Your task to perform on an android device: turn smart compose on in the gmail app Image 0: 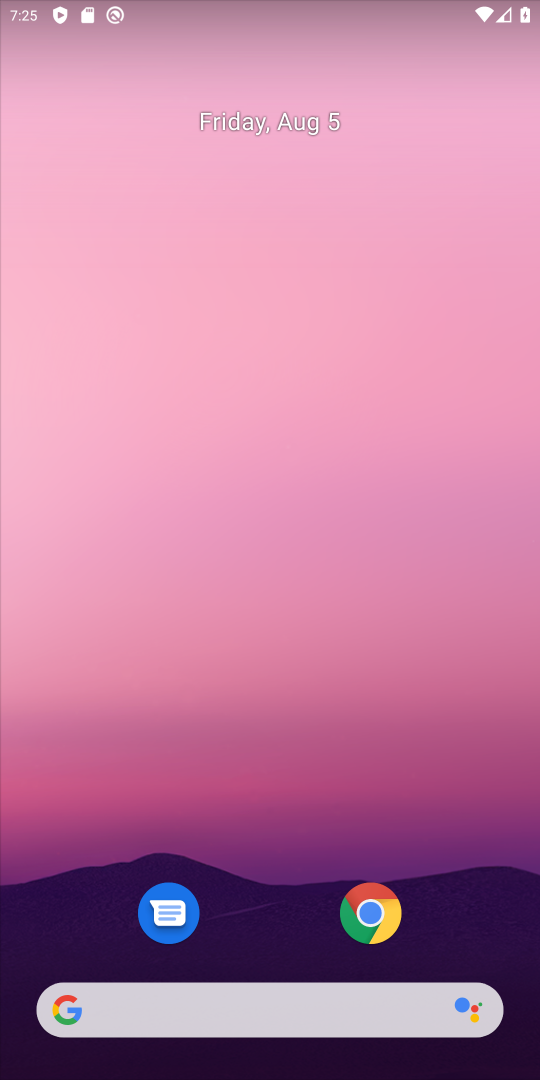
Step 0: drag from (259, 936) to (297, 348)
Your task to perform on an android device: turn smart compose on in the gmail app Image 1: 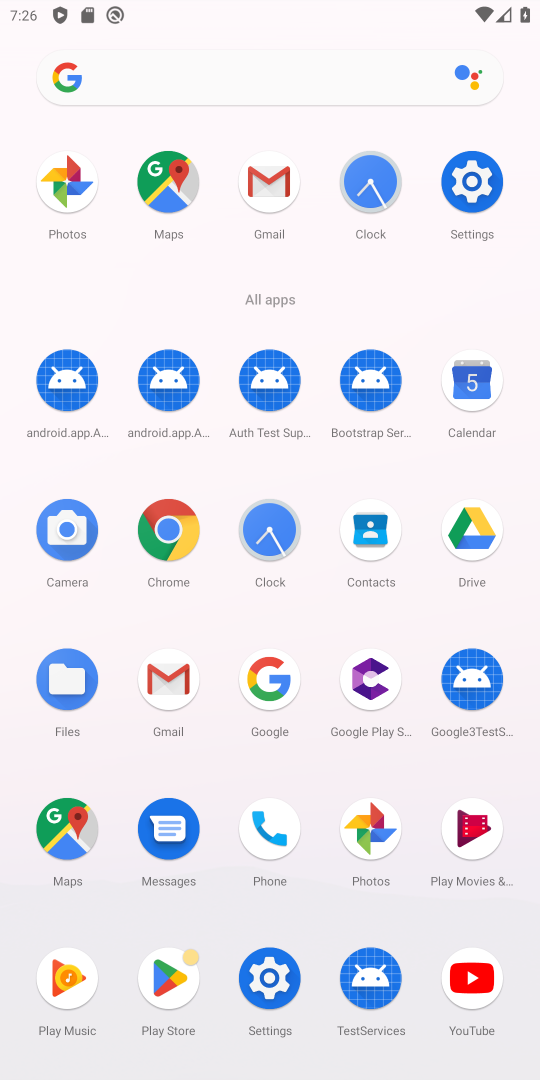
Step 1: click (155, 697)
Your task to perform on an android device: turn smart compose on in the gmail app Image 2: 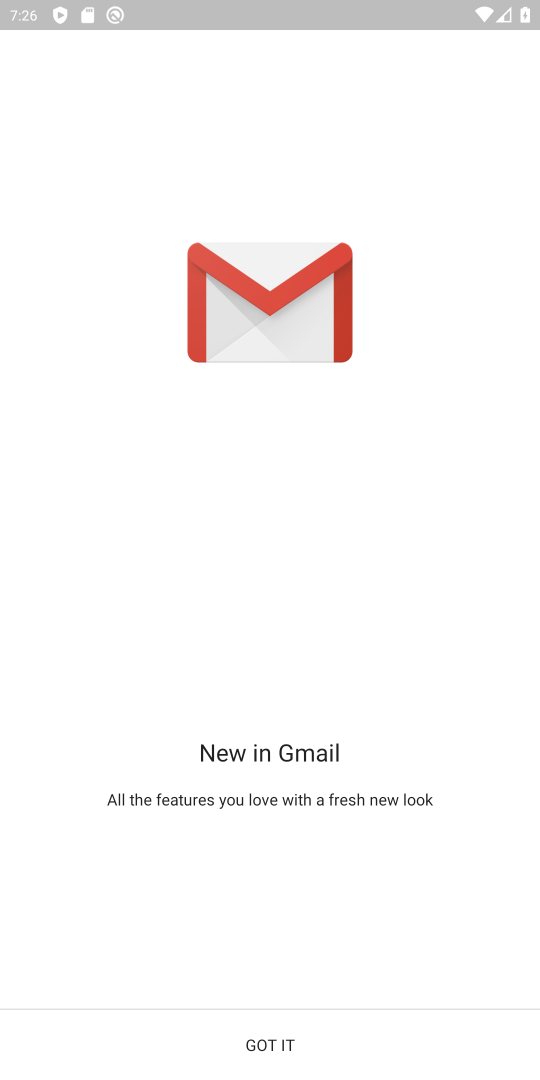
Step 2: click (270, 1044)
Your task to perform on an android device: turn smart compose on in the gmail app Image 3: 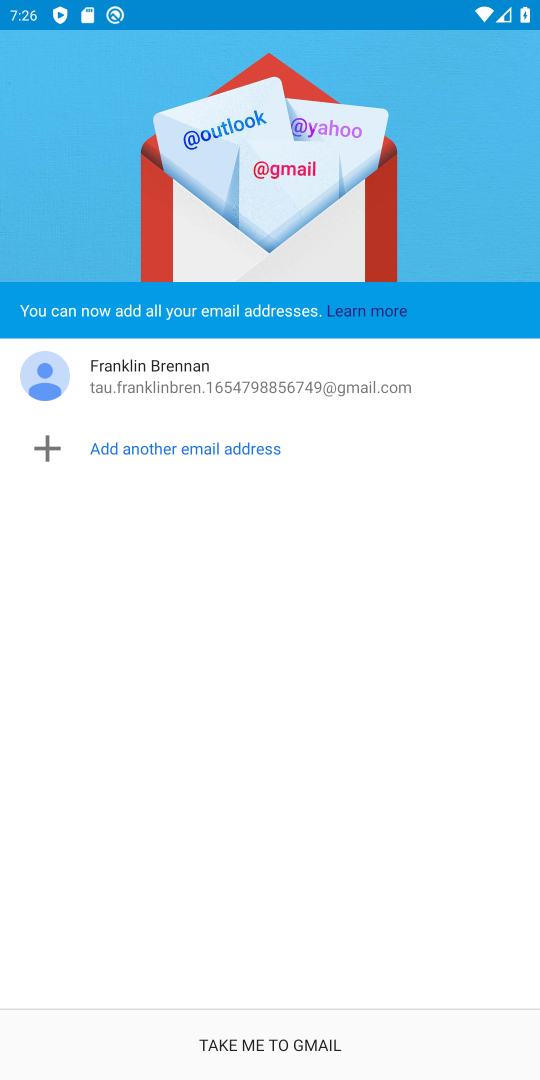
Step 3: click (260, 1050)
Your task to perform on an android device: turn smart compose on in the gmail app Image 4: 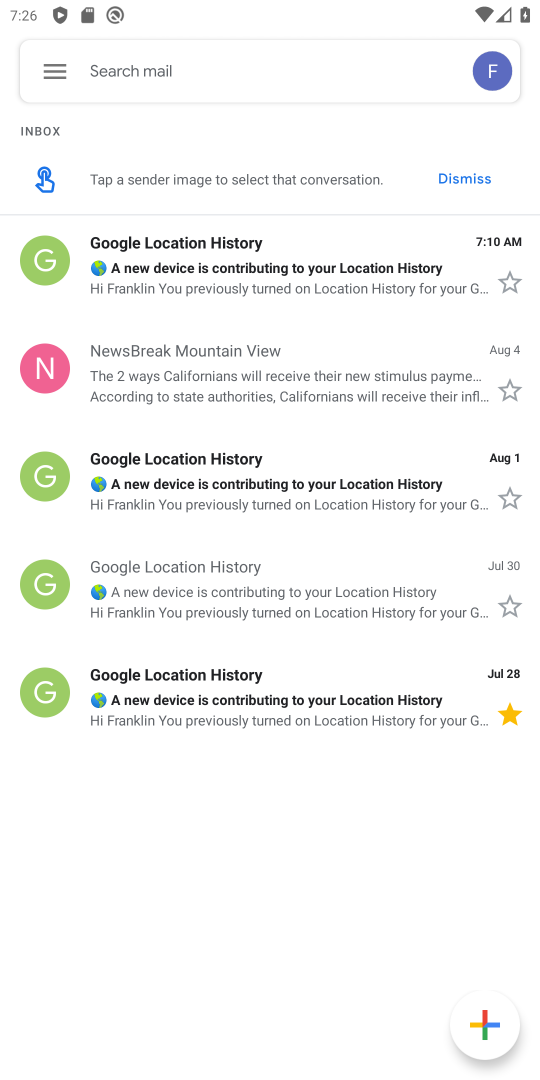
Step 4: click (49, 65)
Your task to perform on an android device: turn smart compose on in the gmail app Image 5: 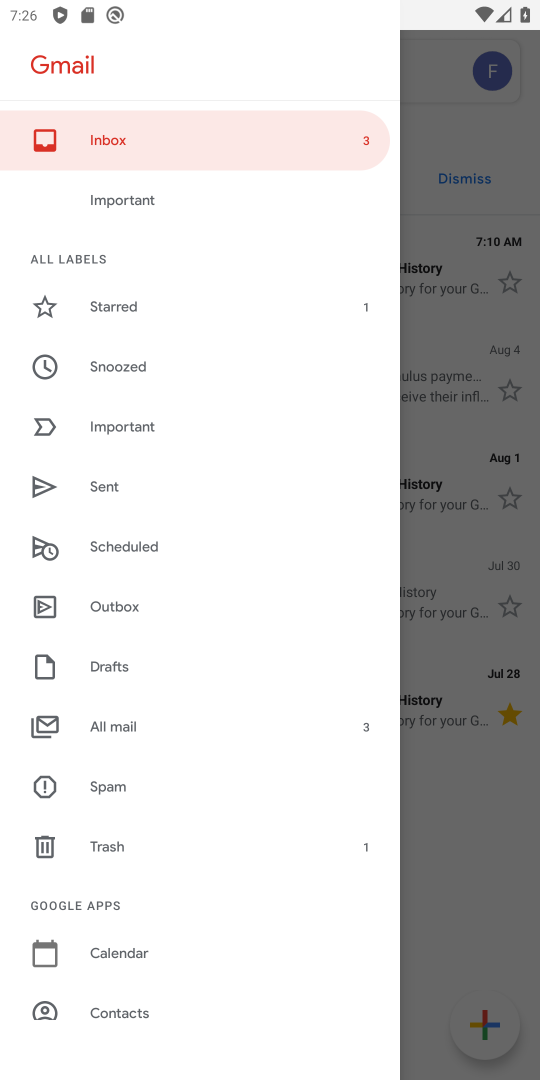
Step 5: drag from (305, 816) to (318, 691)
Your task to perform on an android device: turn smart compose on in the gmail app Image 6: 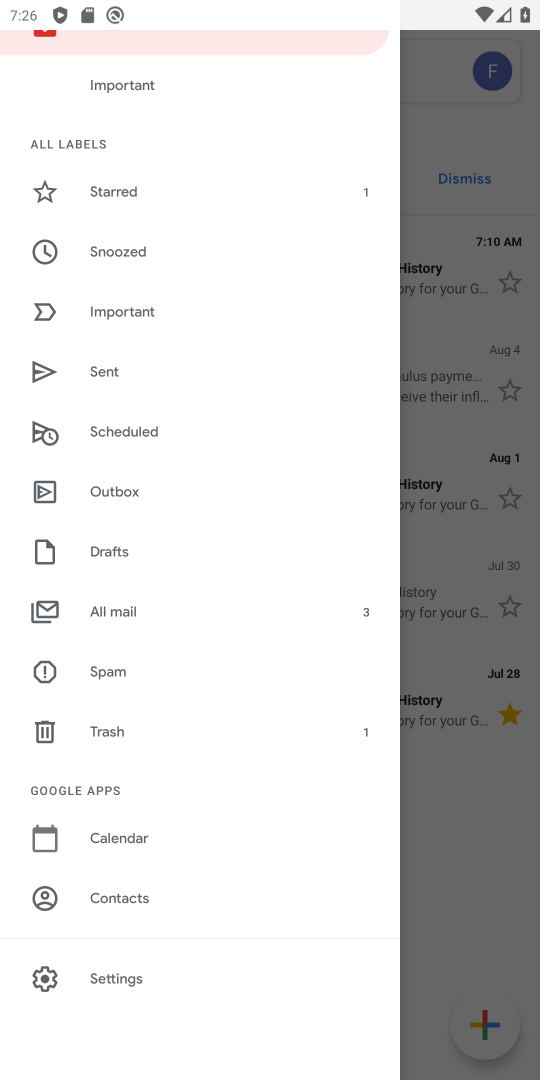
Step 6: drag from (275, 896) to (290, 707)
Your task to perform on an android device: turn smart compose on in the gmail app Image 7: 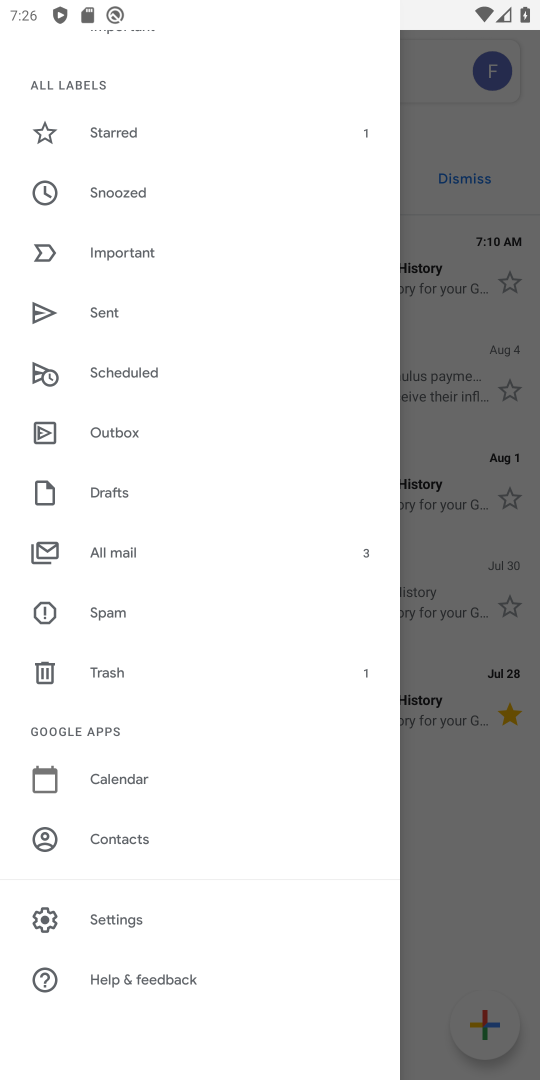
Step 7: click (273, 921)
Your task to perform on an android device: turn smart compose on in the gmail app Image 8: 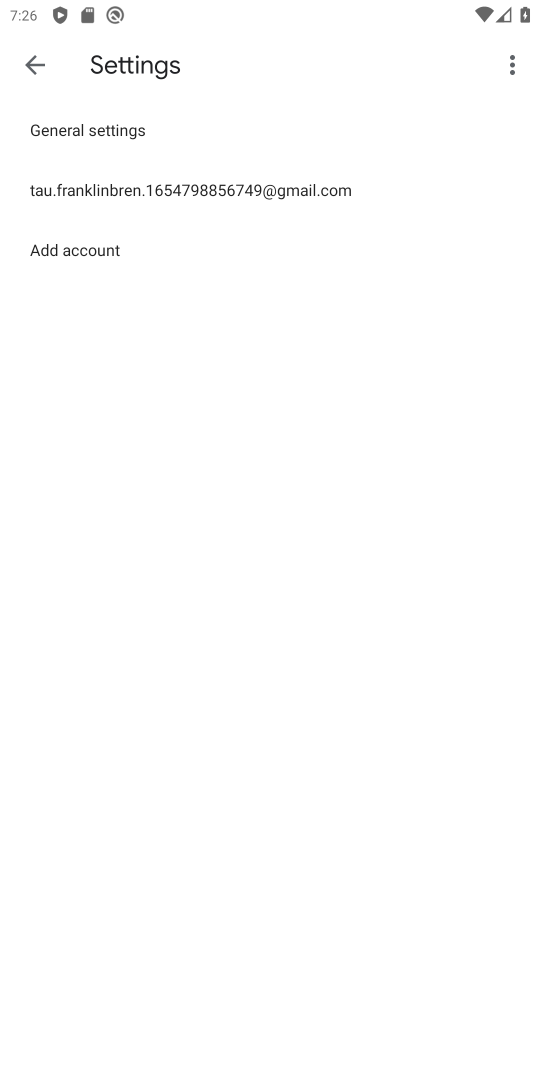
Step 8: click (359, 192)
Your task to perform on an android device: turn smart compose on in the gmail app Image 9: 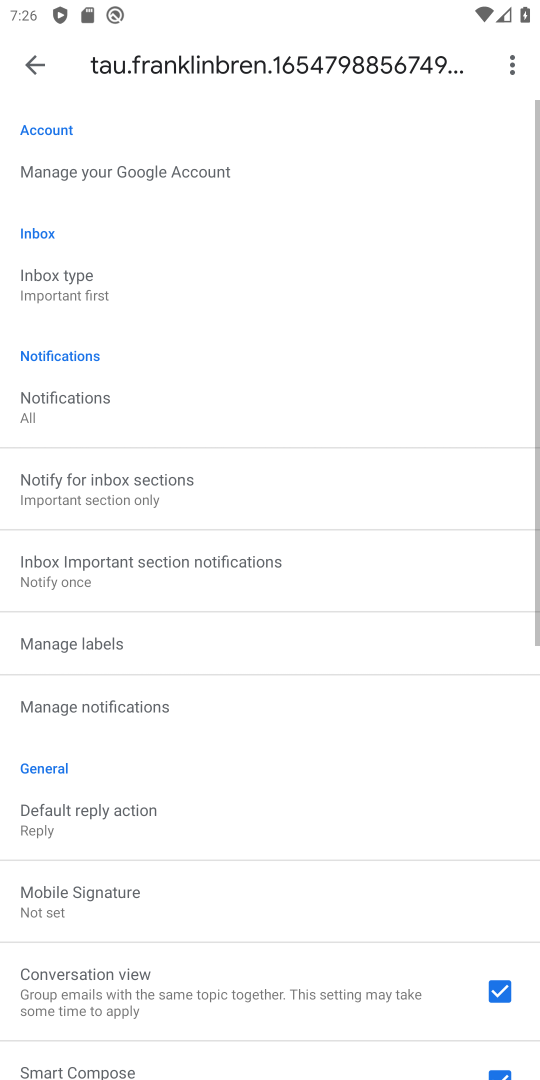
Step 9: task complete